Your task to perform on an android device: delete a single message in the gmail app Image 0: 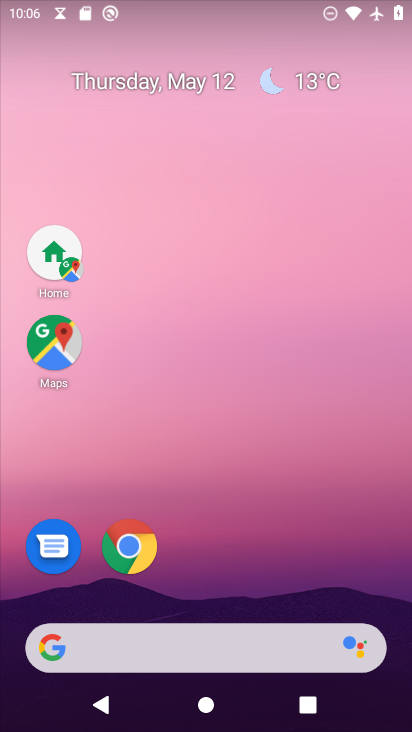
Step 0: drag from (184, 645) to (306, 127)
Your task to perform on an android device: delete a single message in the gmail app Image 1: 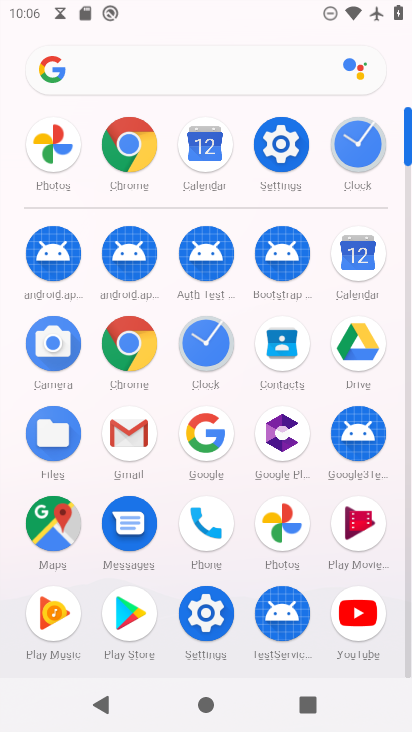
Step 1: click (131, 451)
Your task to perform on an android device: delete a single message in the gmail app Image 2: 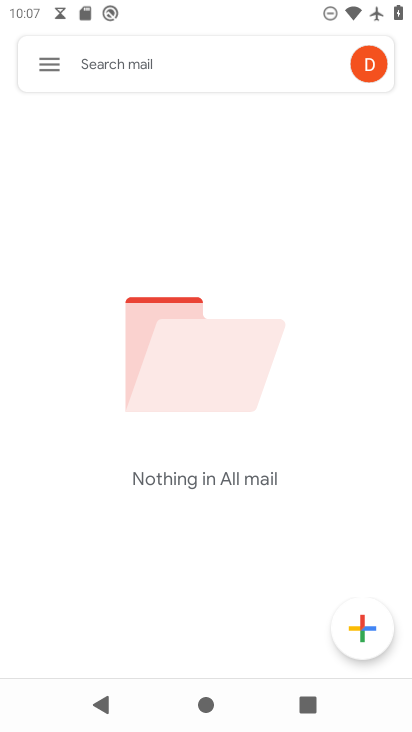
Step 2: task complete